Your task to perform on an android device: Do I have any events this weekend? Image 0: 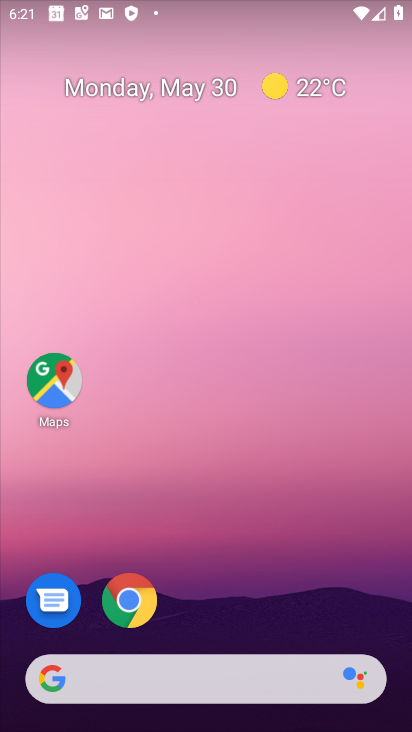
Step 0: press home button
Your task to perform on an android device: Do I have any events this weekend? Image 1: 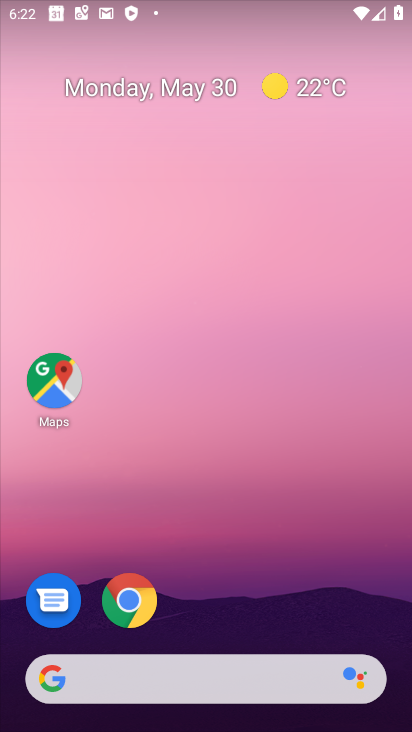
Step 1: drag from (233, 624) to (280, 289)
Your task to perform on an android device: Do I have any events this weekend? Image 2: 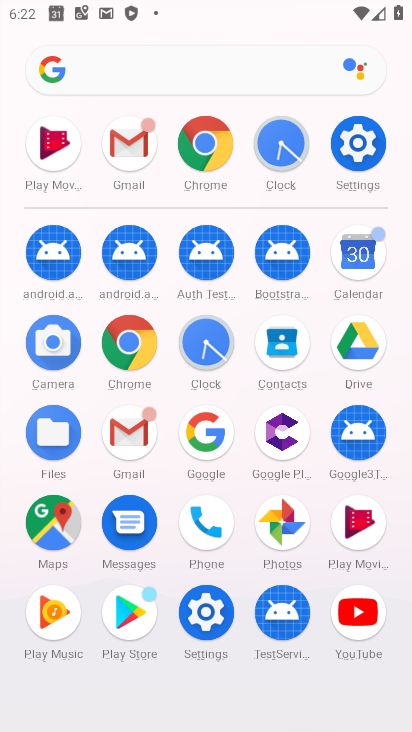
Step 2: click (351, 264)
Your task to perform on an android device: Do I have any events this weekend? Image 3: 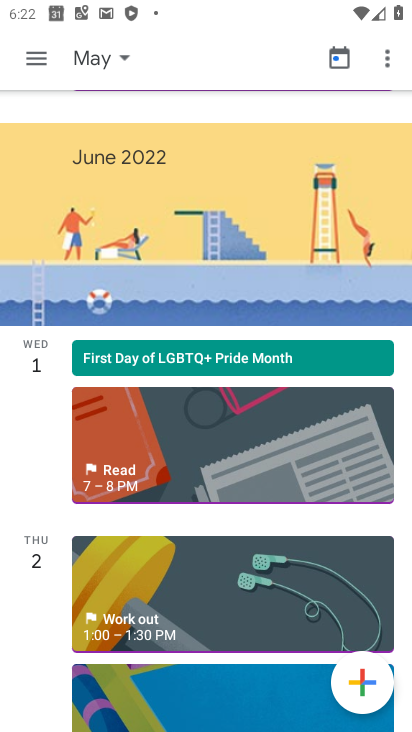
Step 3: press home button
Your task to perform on an android device: Do I have any events this weekend? Image 4: 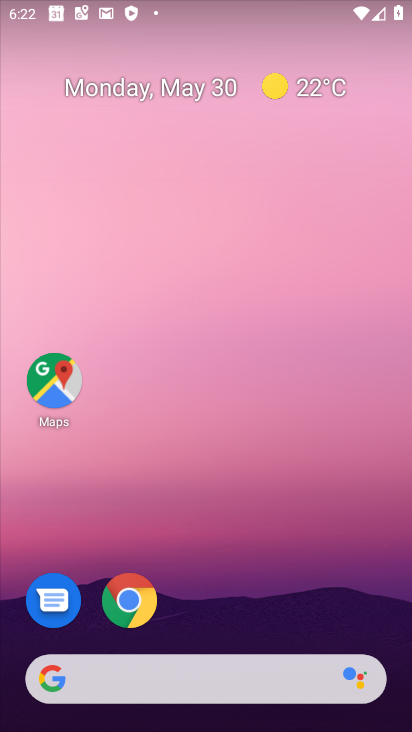
Step 4: press home button
Your task to perform on an android device: Do I have any events this weekend? Image 5: 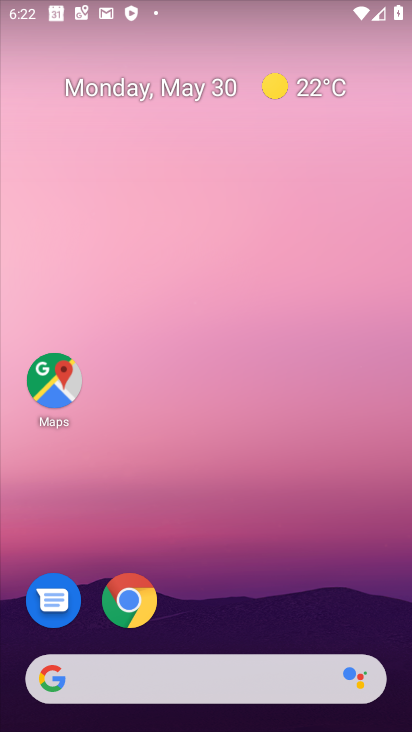
Step 5: drag from (236, 620) to (237, 304)
Your task to perform on an android device: Do I have any events this weekend? Image 6: 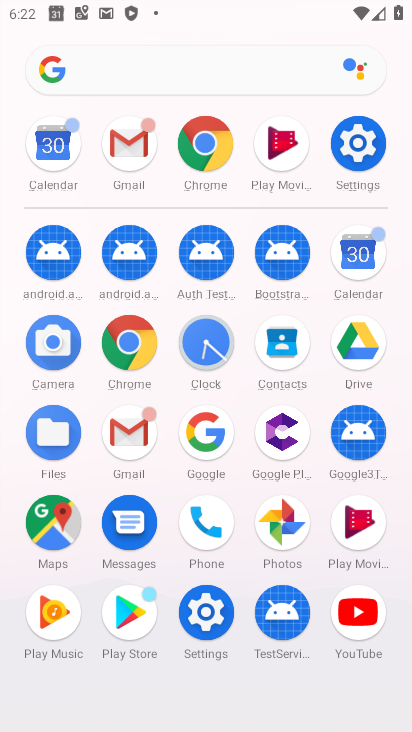
Step 6: click (363, 264)
Your task to perform on an android device: Do I have any events this weekend? Image 7: 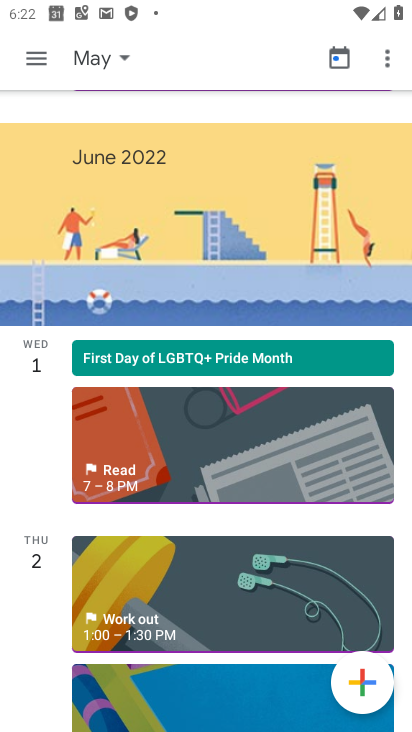
Step 7: task complete